Your task to perform on an android device: Do I have any events this weekend? Image 0: 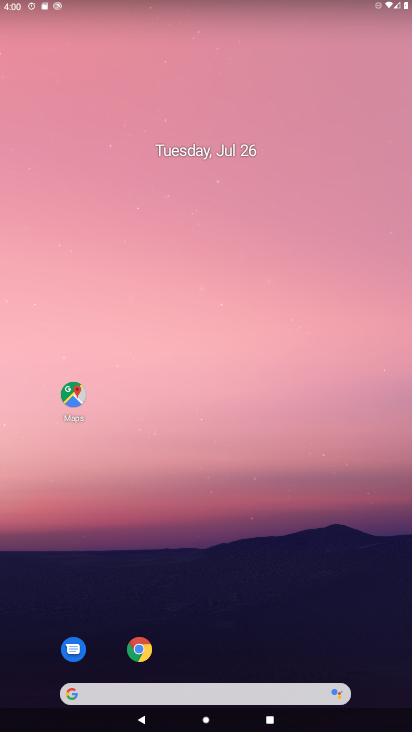
Step 0: drag from (253, 351) to (226, 20)
Your task to perform on an android device: Do I have any events this weekend? Image 1: 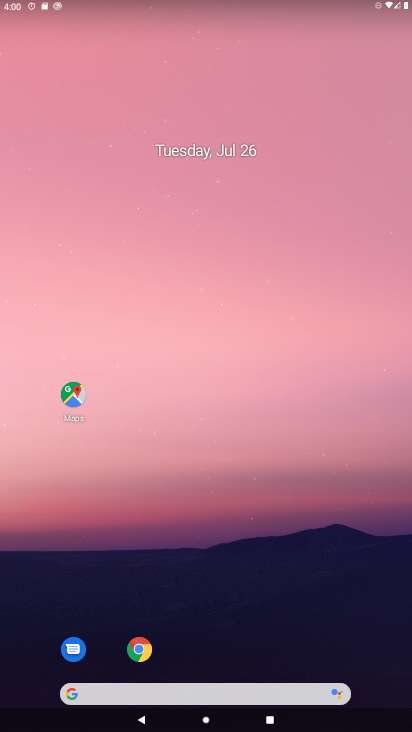
Step 1: drag from (379, 591) to (179, 0)
Your task to perform on an android device: Do I have any events this weekend? Image 2: 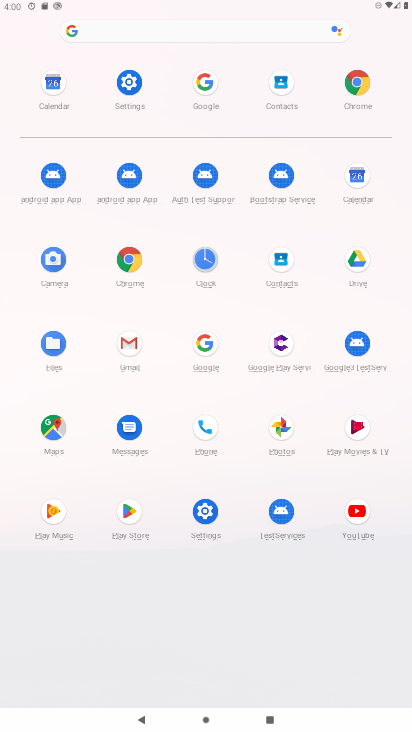
Step 2: click (357, 177)
Your task to perform on an android device: Do I have any events this weekend? Image 3: 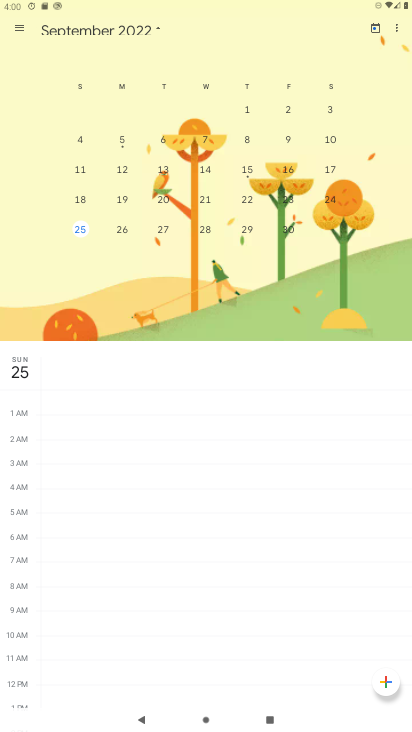
Step 3: task complete